Your task to perform on an android device: stop showing notifications on the lock screen Image 0: 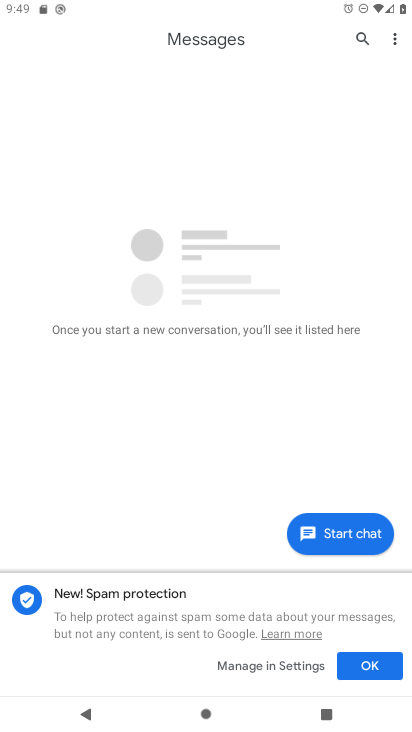
Step 0: press home button
Your task to perform on an android device: stop showing notifications on the lock screen Image 1: 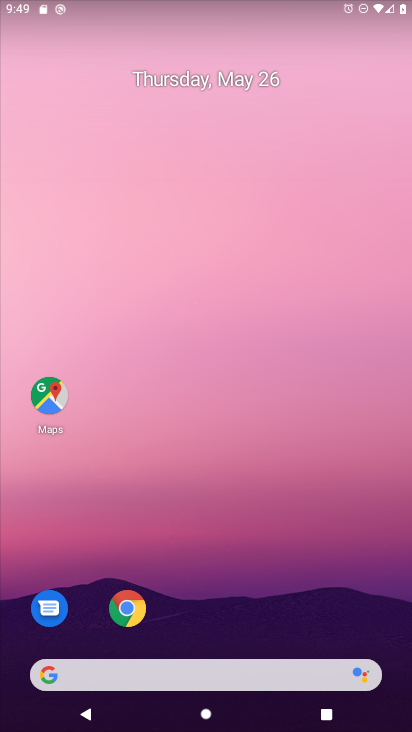
Step 1: drag from (294, 584) to (169, 16)
Your task to perform on an android device: stop showing notifications on the lock screen Image 2: 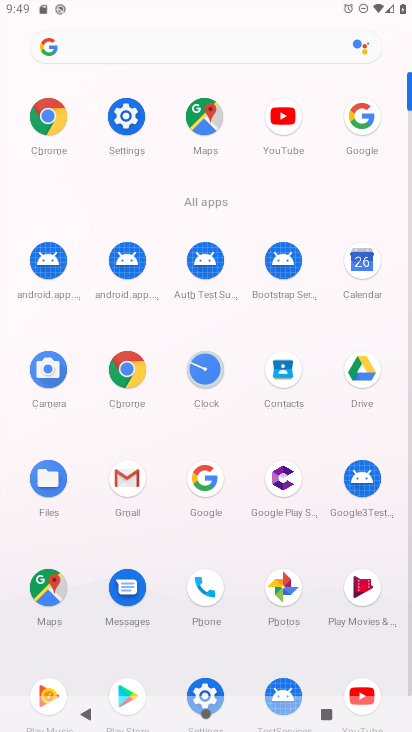
Step 2: click (115, 113)
Your task to perform on an android device: stop showing notifications on the lock screen Image 3: 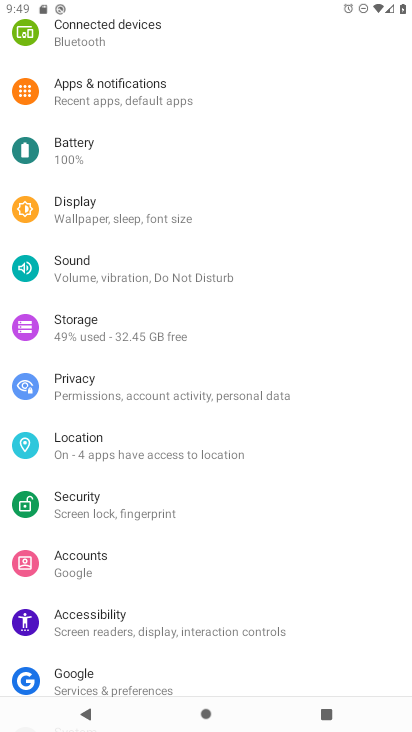
Step 3: click (158, 100)
Your task to perform on an android device: stop showing notifications on the lock screen Image 4: 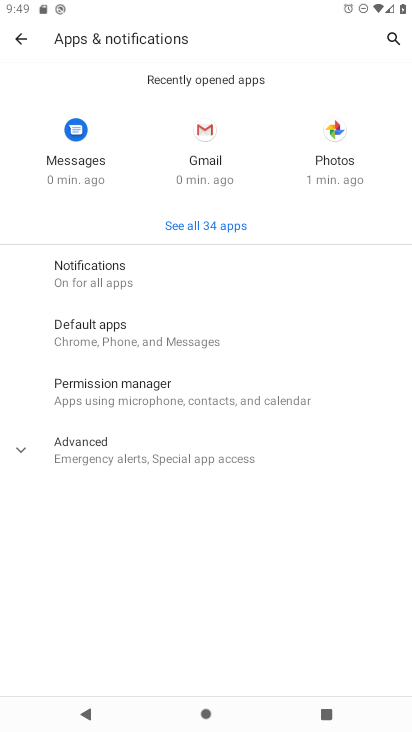
Step 4: click (196, 281)
Your task to perform on an android device: stop showing notifications on the lock screen Image 5: 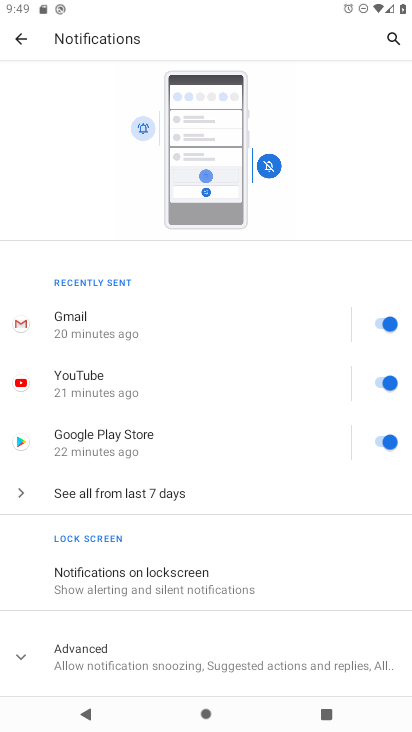
Step 5: click (223, 651)
Your task to perform on an android device: stop showing notifications on the lock screen Image 6: 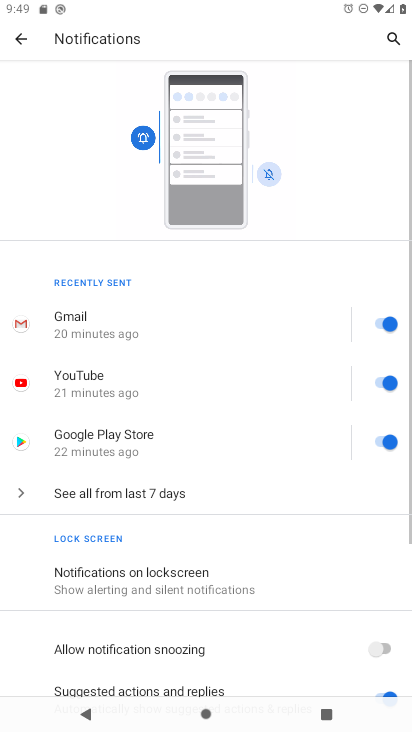
Step 6: click (188, 569)
Your task to perform on an android device: stop showing notifications on the lock screen Image 7: 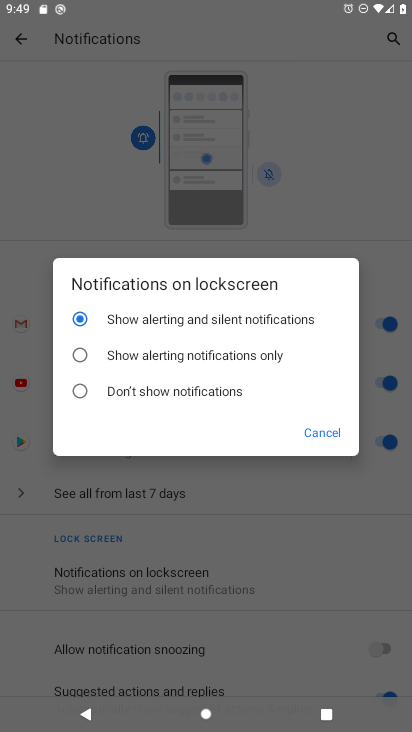
Step 7: click (206, 395)
Your task to perform on an android device: stop showing notifications on the lock screen Image 8: 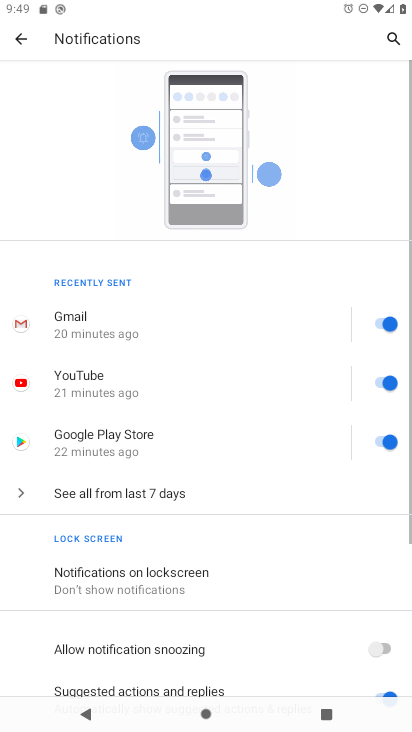
Step 8: task complete